Your task to perform on an android device: refresh tabs in the chrome app Image 0: 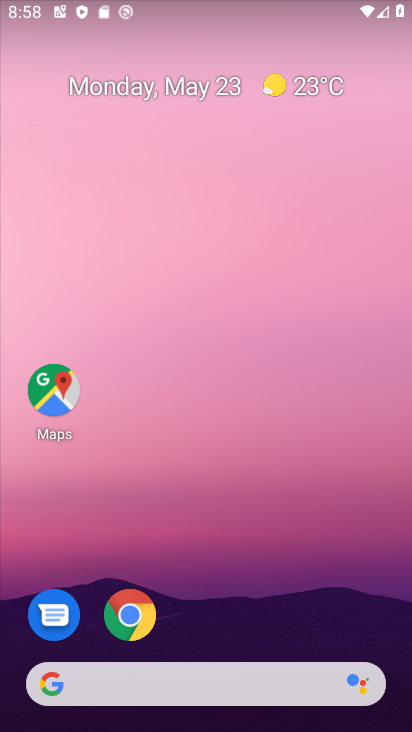
Step 0: click (128, 615)
Your task to perform on an android device: refresh tabs in the chrome app Image 1: 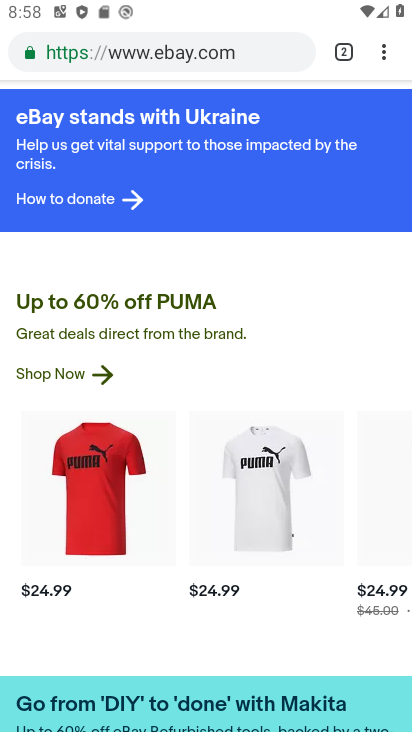
Step 1: click (385, 53)
Your task to perform on an android device: refresh tabs in the chrome app Image 2: 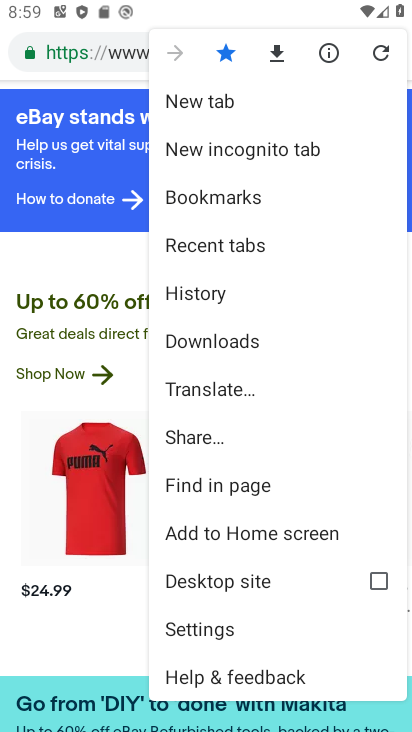
Step 2: click (384, 55)
Your task to perform on an android device: refresh tabs in the chrome app Image 3: 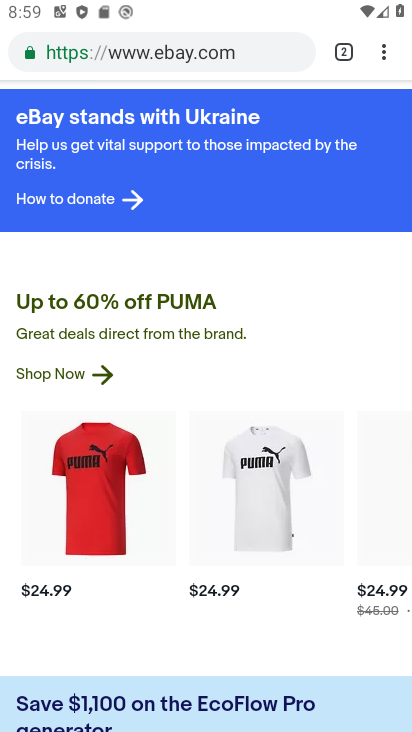
Step 3: task complete